Your task to perform on an android device: turn off smart reply in the gmail app Image 0: 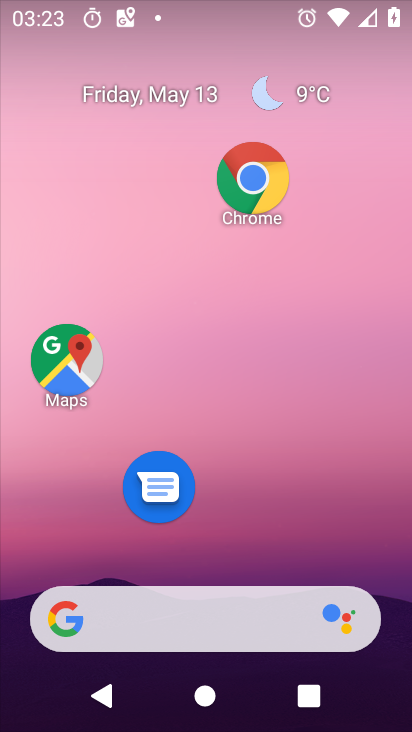
Step 0: drag from (233, 525) to (298, 95)
Your task to perform on an android device: turn off smart reply in the gmail app Image 1: 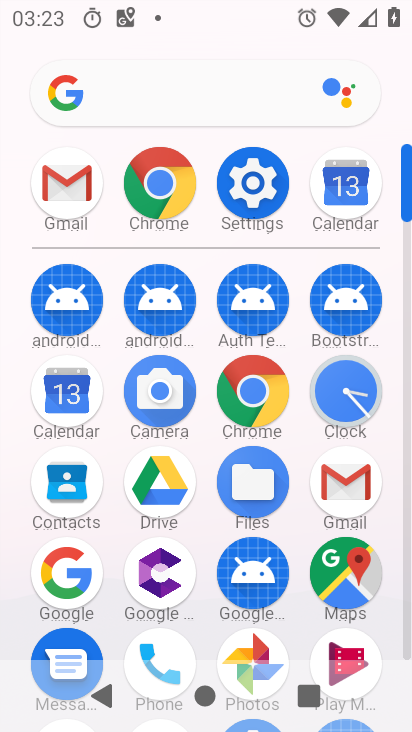
Step 1: click (67, 183)
Your task to perform on an android device: turn off smart reply in the gmail app Image 2: 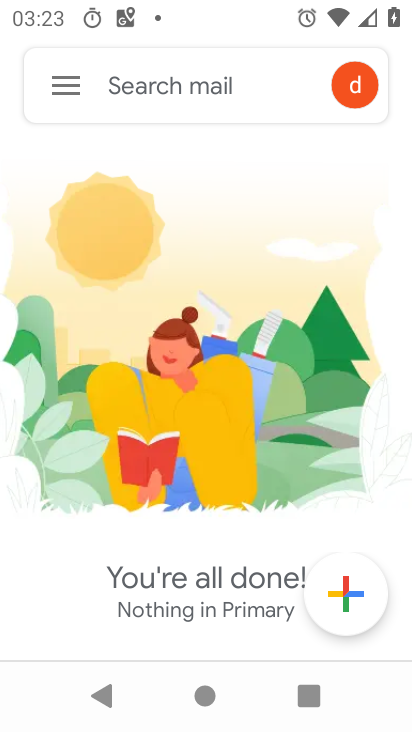
Step 2: click (79, 99)
Your task to perform on an android device: turn off smart reply in the gmail app Image 3: 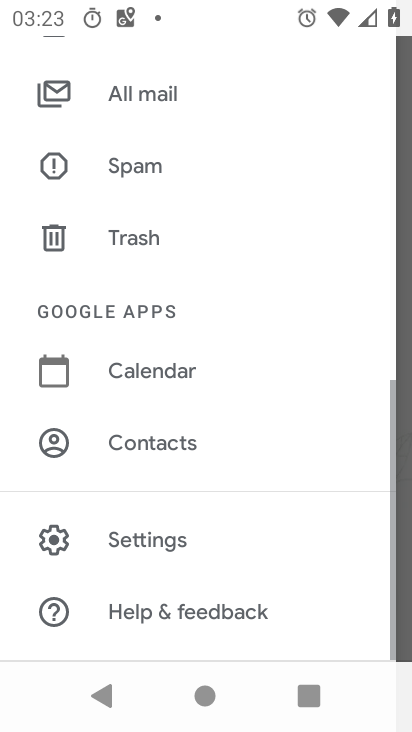
Step 3: drag from (210, 513) to (214, 389)
Your task to perform on an android device: turn off smart reply in the gmail app Image 4: 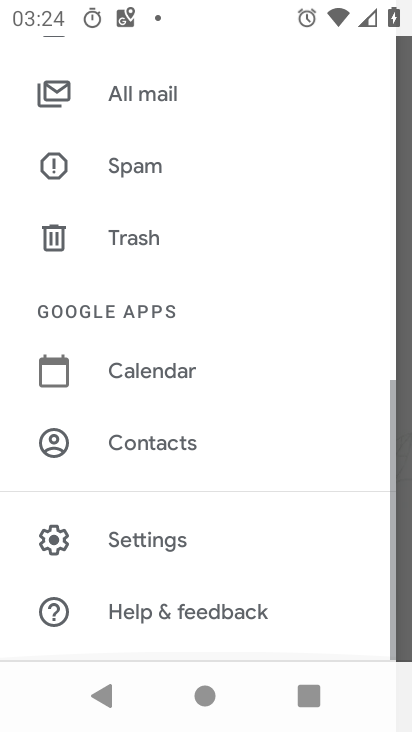
Step 4: click (173, 519)
Your task to perform on an android device: turn off smart reply in the gmail app Image 5: 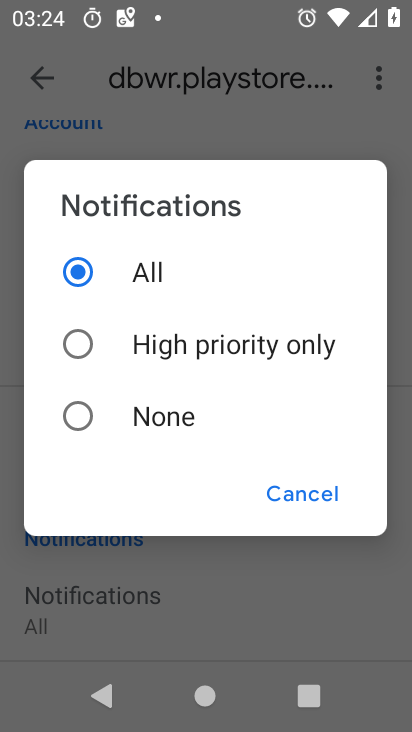
Step 5: press back button
Your task to perform on an android device: turn off smart reply in the gmail app Image 6: 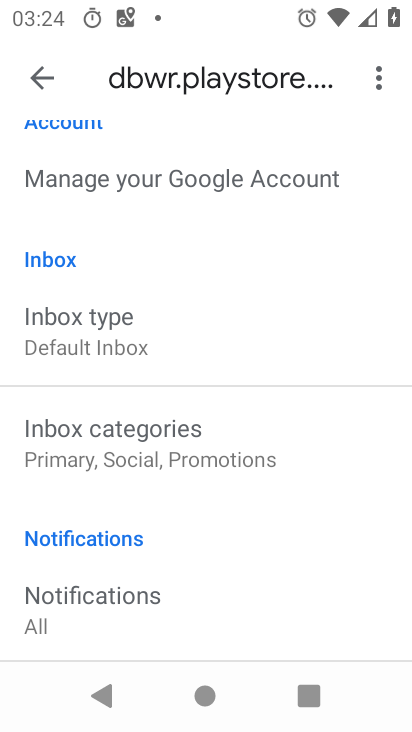
Step 6: drag from (202, 495) to (250, 175)
Your task to perform on an android device: turn off smart reply in the gmail app Image 7: 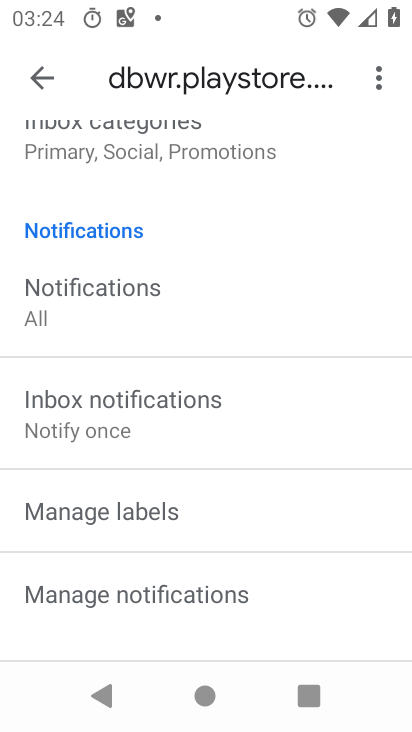
Step 7: drag from (210, 575) to (221, 195)
Your task to perform on an android device: turn off smart reply in the gmail app Image 8: 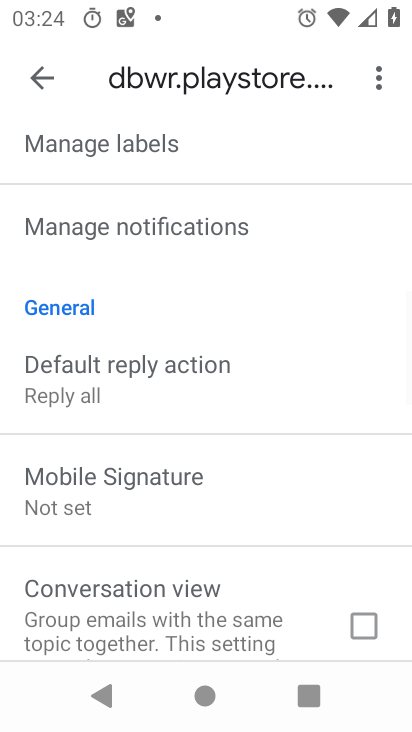
Step 8: drag from (221, 524) to (248, 145)
Your task to perform on an android device: turn off smart reply in the gmail app Image 9: 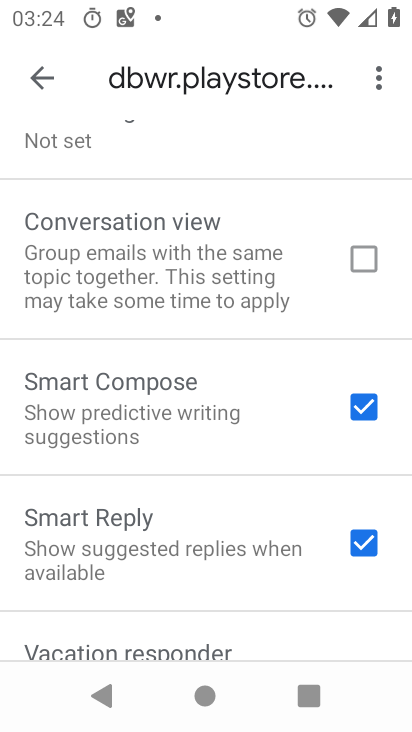
Step 9: click (362, 535)
Your task to perform on an android device: turn off smart reply in the gmail app Image 10: 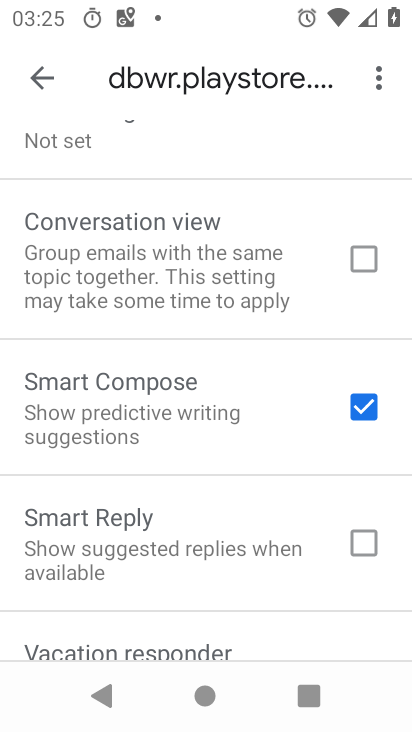
Step 10: task complete